Your task to perform on an android device: Search for vegetarian restaurants on Maps Image 0: 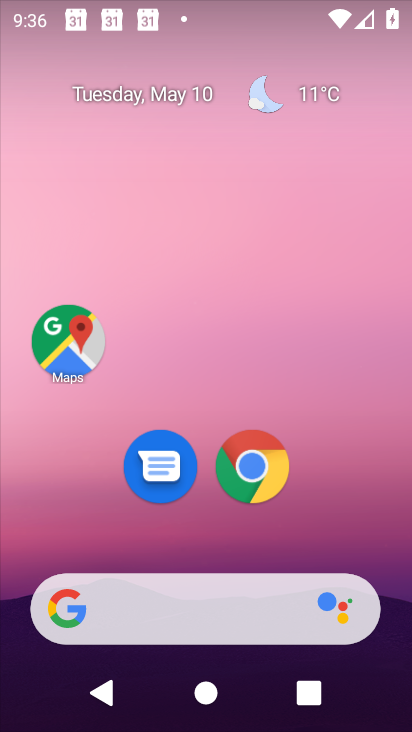
Step 0: click (60, 326)
Your task to perform on an android device: Search for vegetarian restaurants on Maps Image 1: 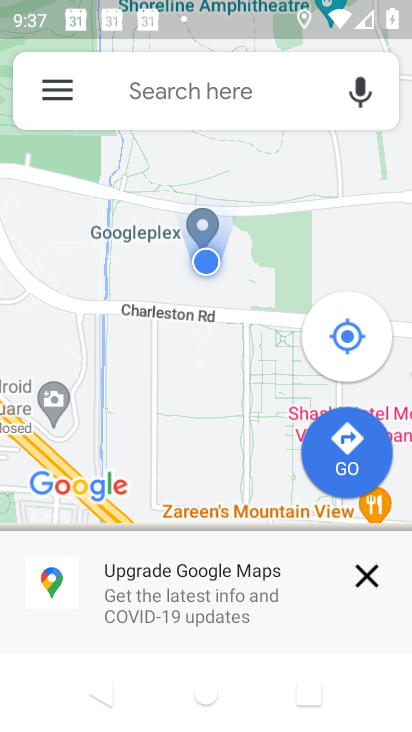
Step 1: click (217, 82)
Your task to perform on an android device: Search for vegetarian restaurants on Maps Image 2: 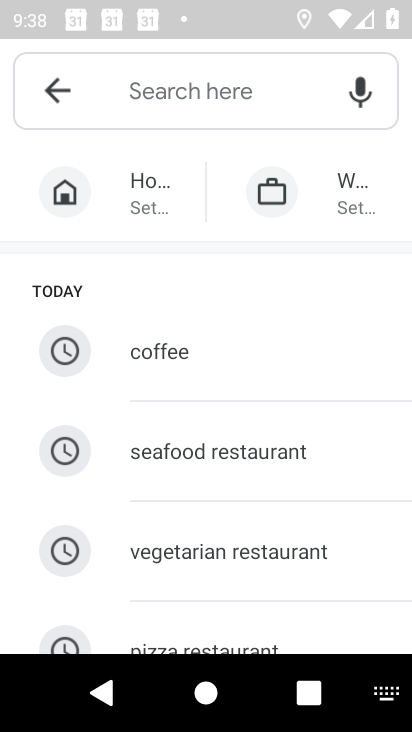
Step 2: type "vegetarian restaurants"
Your task to perform on an android device: Search for vegetarian restaurants on Maps Image 3: 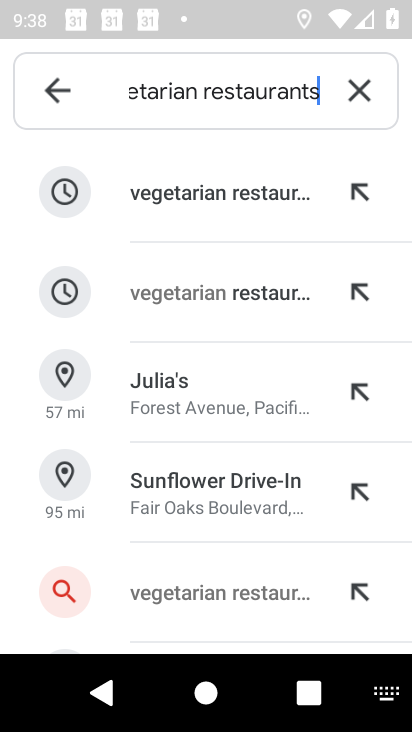
Step 3: press enter
Your task to perform on an android device: Search for vegetarian restaurants on Maps Image 4: 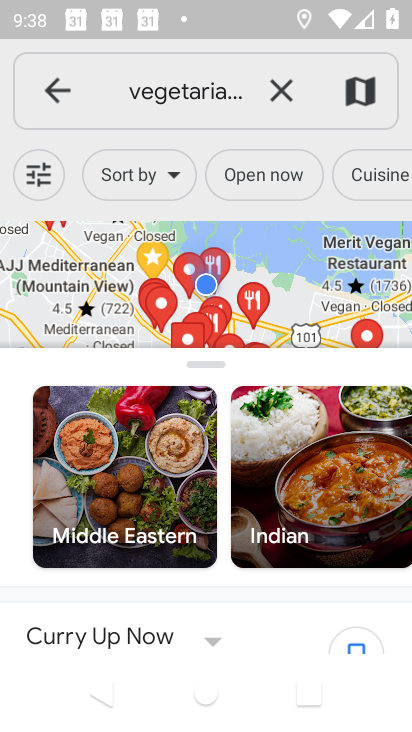
Step 4: task complete